Your task to perform on an android device: Go to Android settings Image 0: 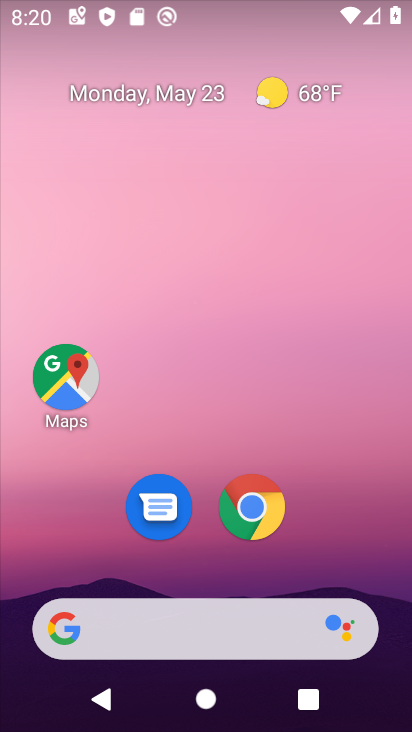
Step 0: drag from (204, 444) to (244, 45)
Your task to perform on an android device: Go to Android settings Image 1: 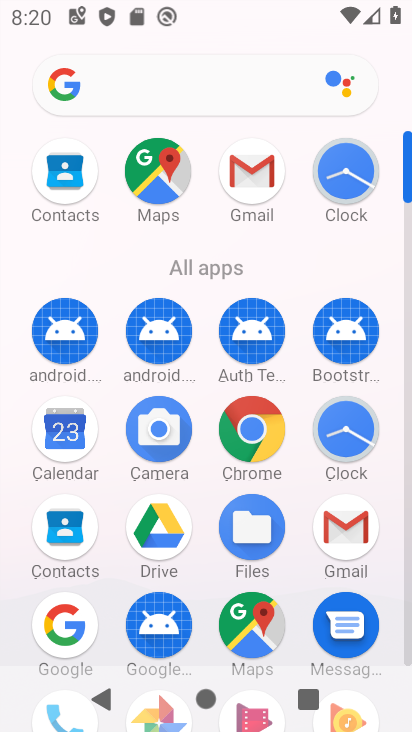
Step 1: drag from (206, 625) to (260, 244)
Your task to perform on an android device: Go to Android settings Image 2: 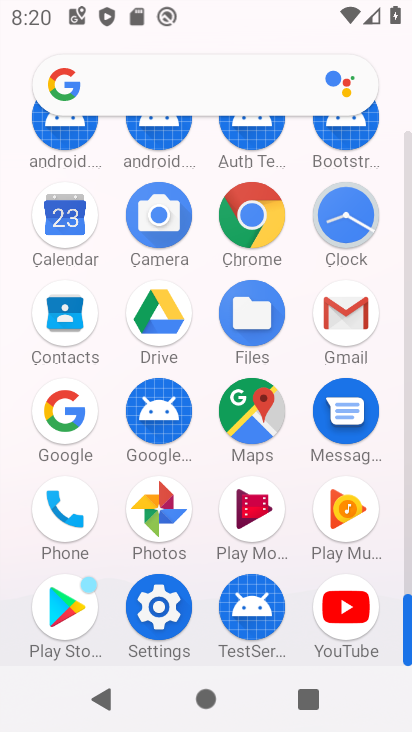
Step 2: click (156, 601)
Your task to perform on an android device: Go to Android settings Image 3: 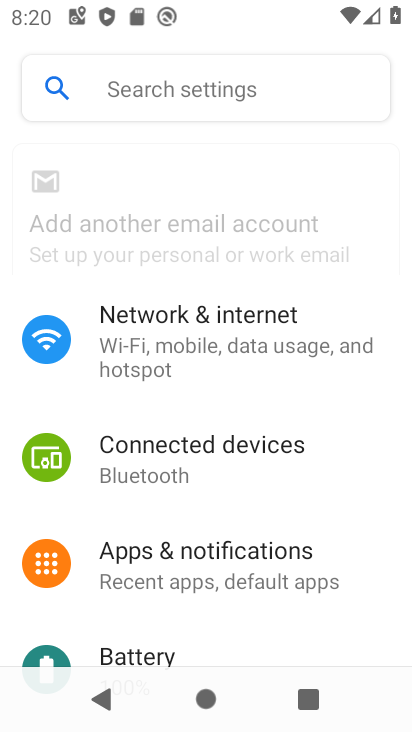
Step 3: task complete